Your task to perform on an android device: Open network settings Image 0: 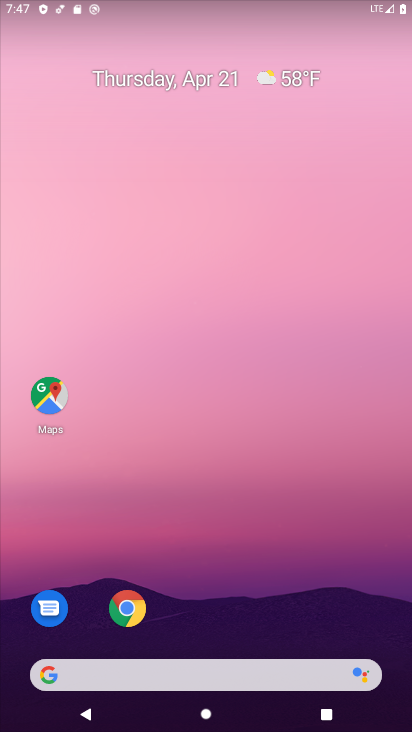
Step 0: drag from (312, 598) to (295, 125)
Your task to perform on an android device: Open network settings Image 1: 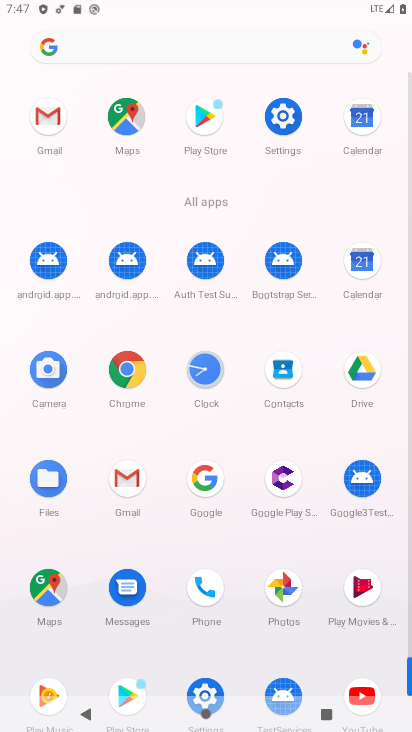
Step 1: click (295, 120)
Your task to perform on an android device: Open network settings Image 2: 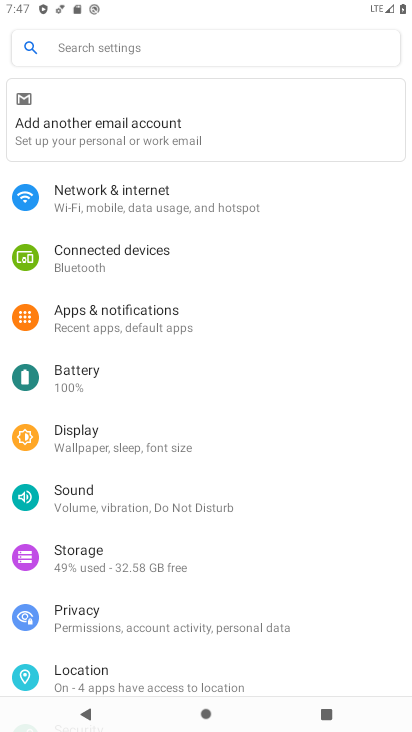
Step 2: click (213, 201)
Your task to perform on an android device: Open network settings Image 3: 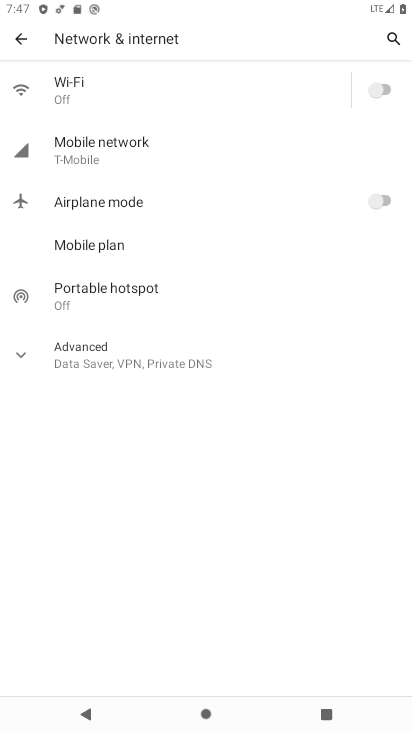
Step 3: task complete